Your task to perform on an android device: Open the map Image 0: 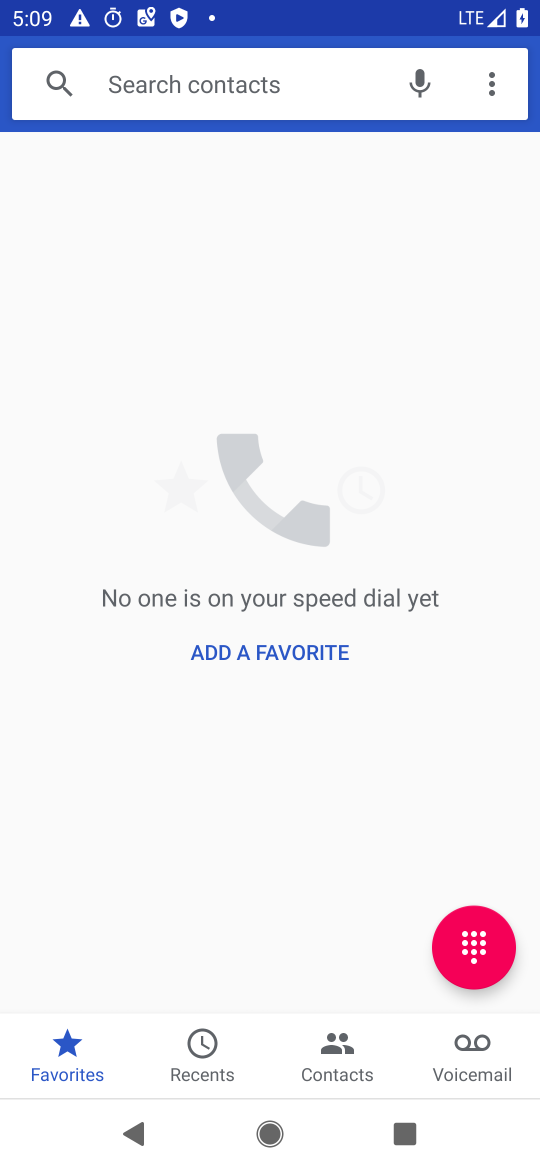
Step 0: press home button
Your task to perform on an android device: Open the map Image 1: 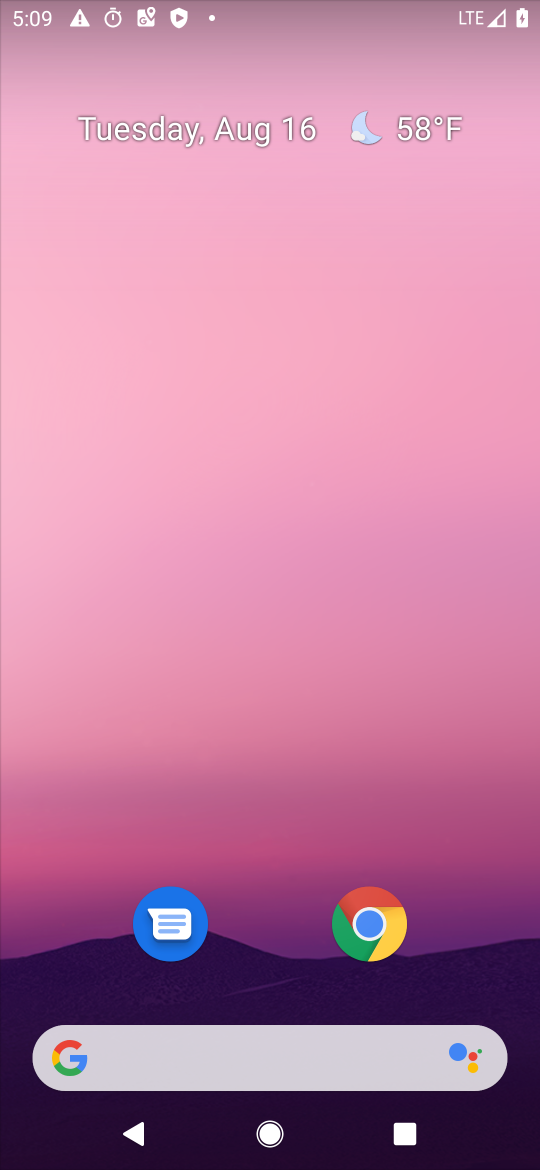
Step 1: drag from (242, 963) to (188, 27)
Your task to perform on an android device: Open the map Image 2: 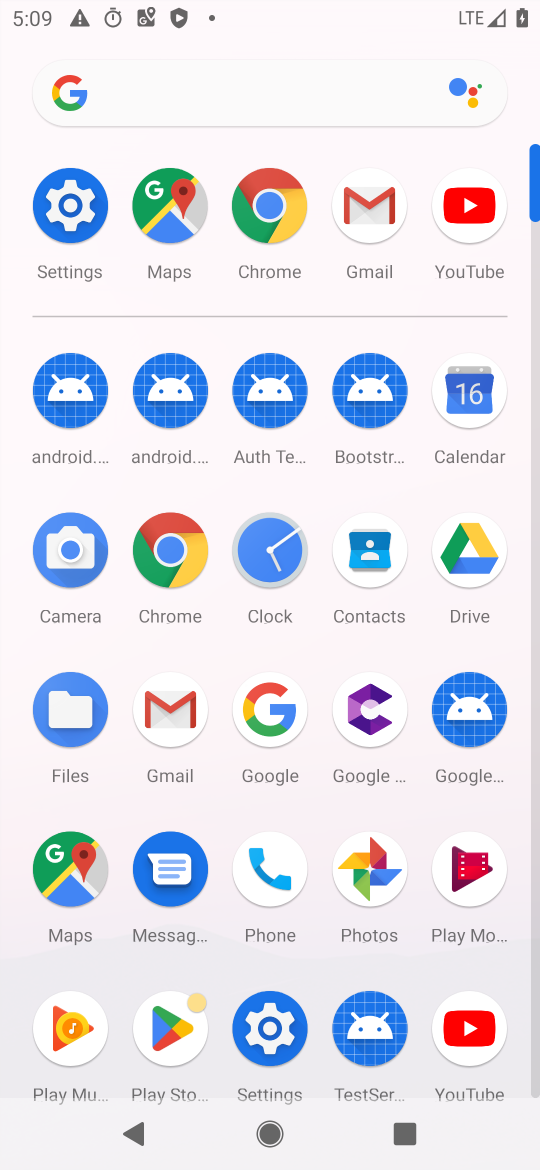
Step 2: click (142, 218)
Your task to perform on an android device: Open the map Image 3: 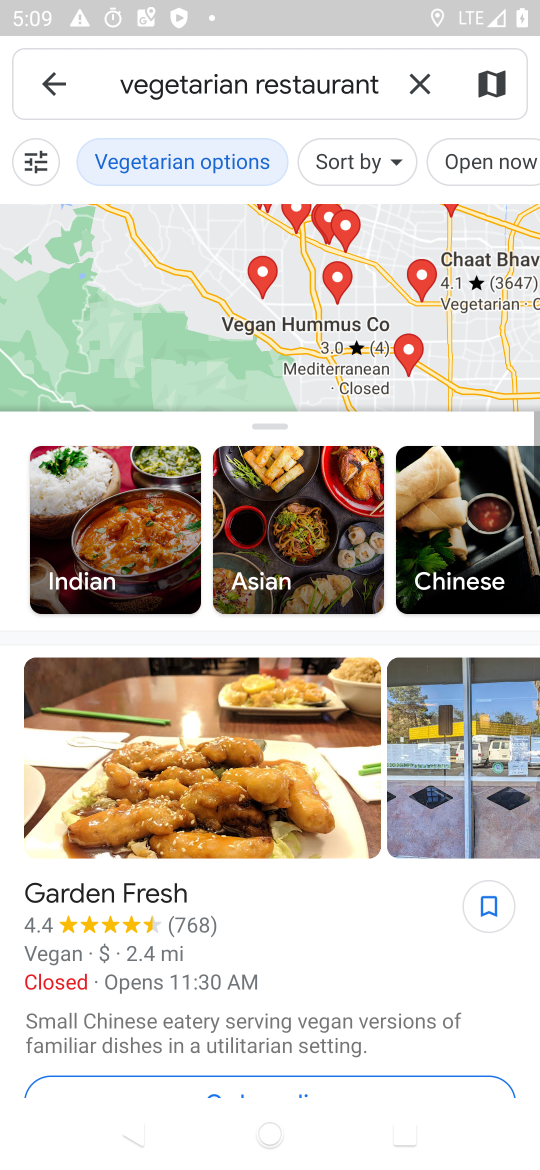
Step 3: task complete